Your task to perform on an android device: all mails in gmail Image 0: 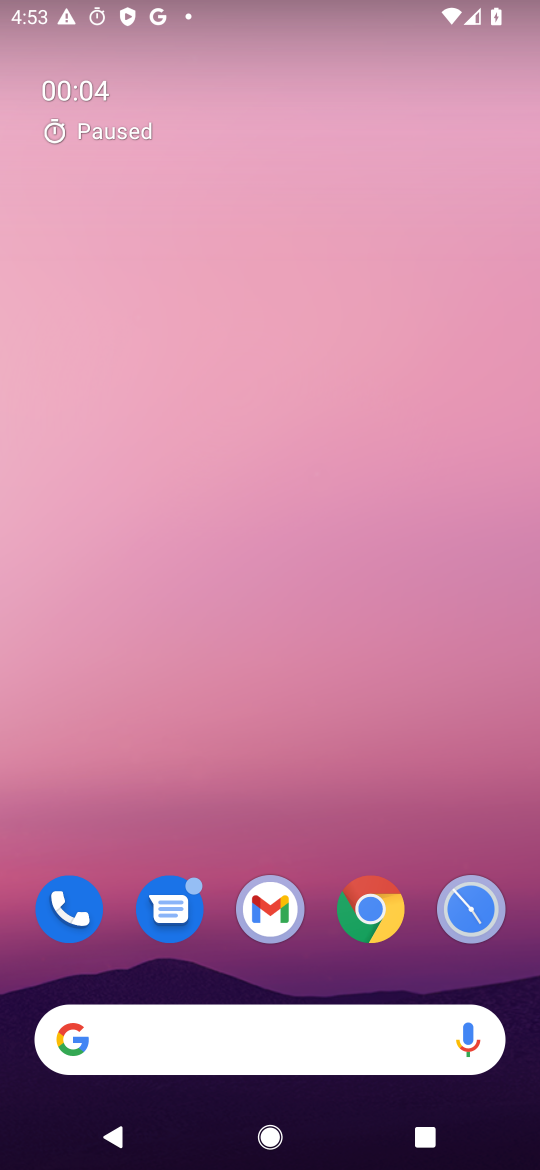
Step 0: click (271, 910)
Your task to perform on an android device: all mails in gmail Image 1: 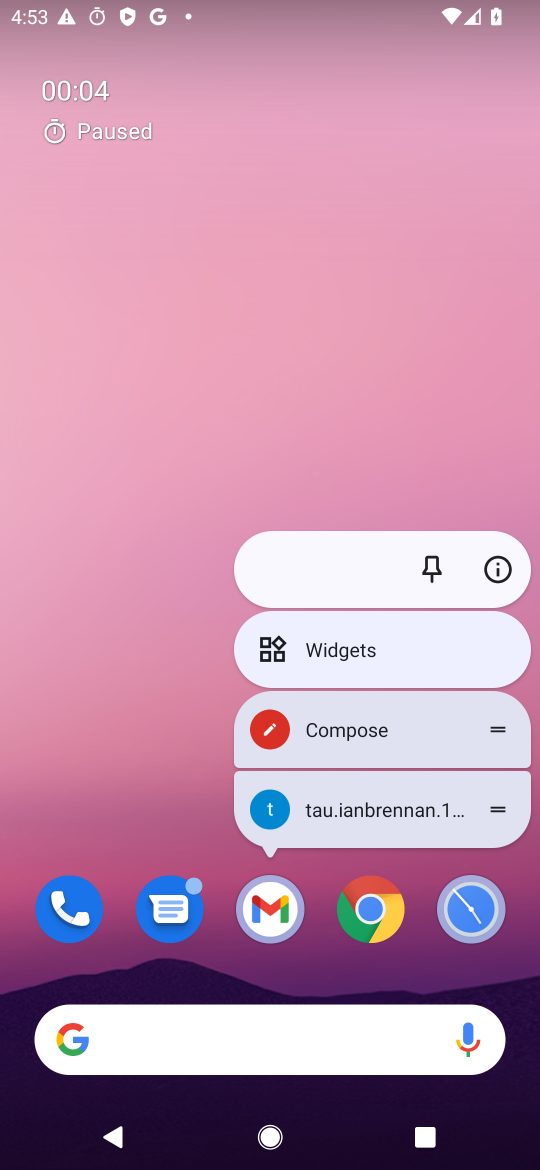
Step 1: click (273, 921)
Your task to perform on an android device: all mails in gmail Image 2: 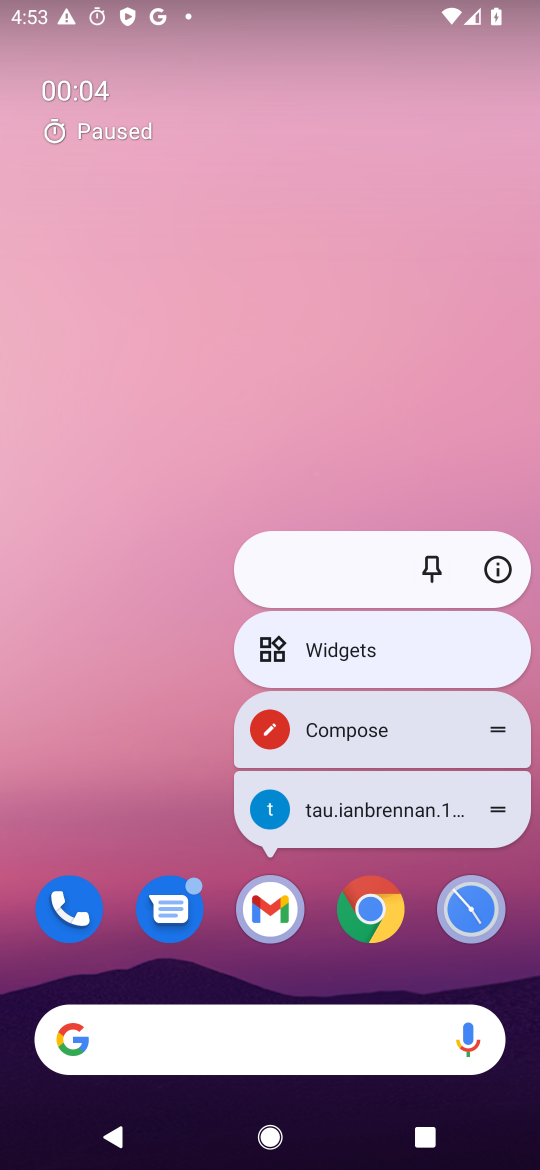
Step 2: click (257, 908)
Your task to perform on an android device: all mails in gmail Image 3: 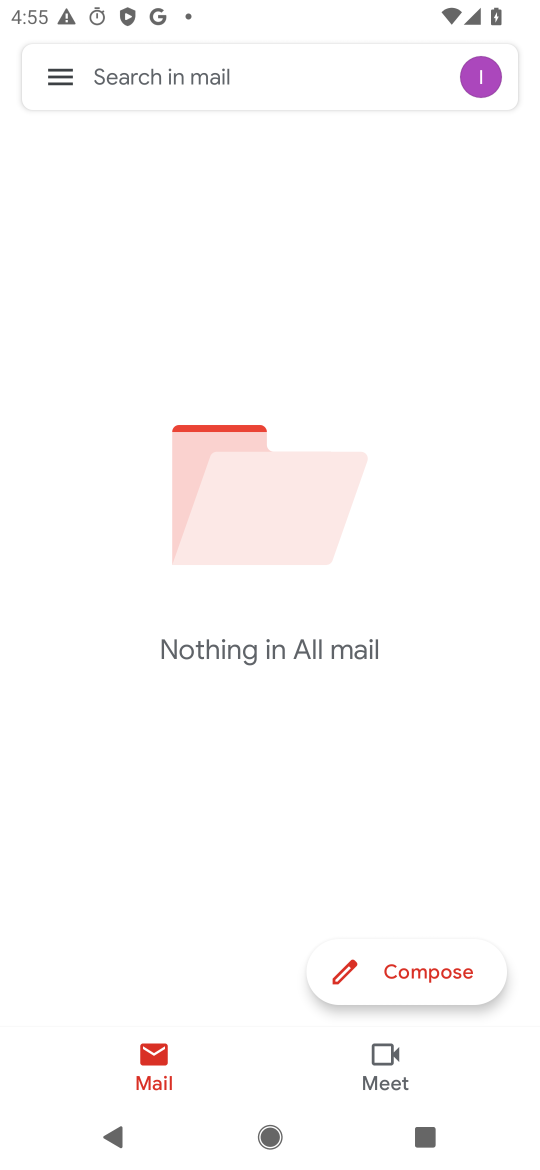
Step 3: task complete